Your task to perform on an android device: Go to Yahoo.com Image 0: 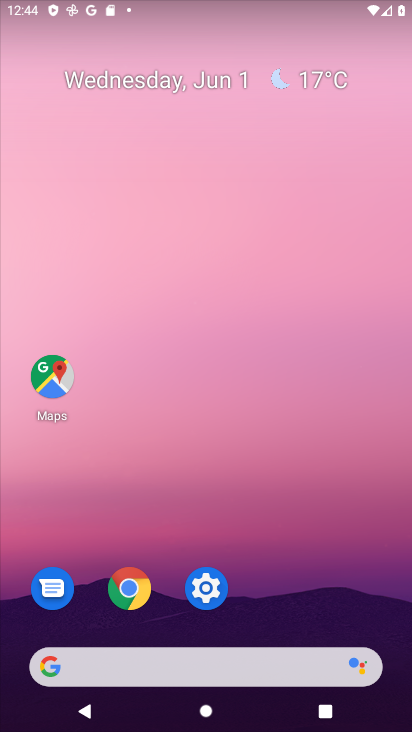
Step 0: press home button
Your task to perform on an android device: Go to Yahoo.com Image 1: 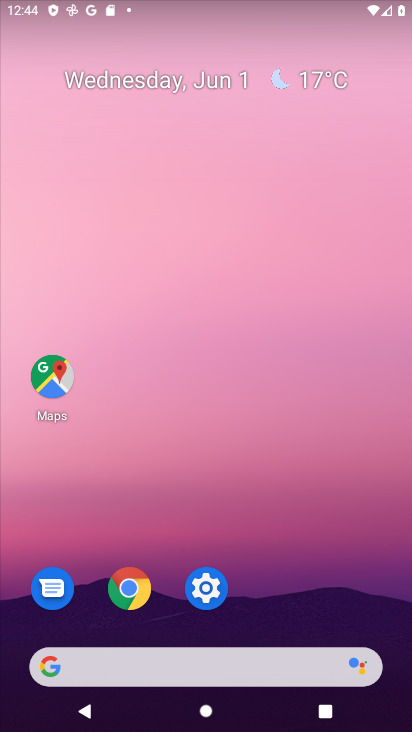
Step 1: click (142, 572)
Your task to perform on an android device: Go to Yahoo.com Image 2: 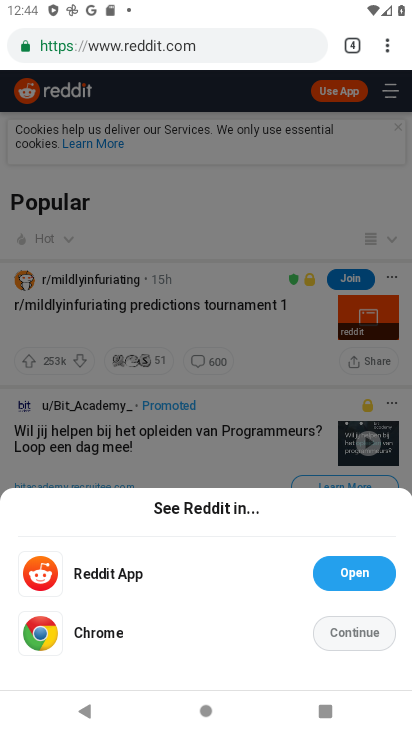
Step 2: click (206, 71)
Your task to perform on an android device: Go to Yahoo.com Image 3: 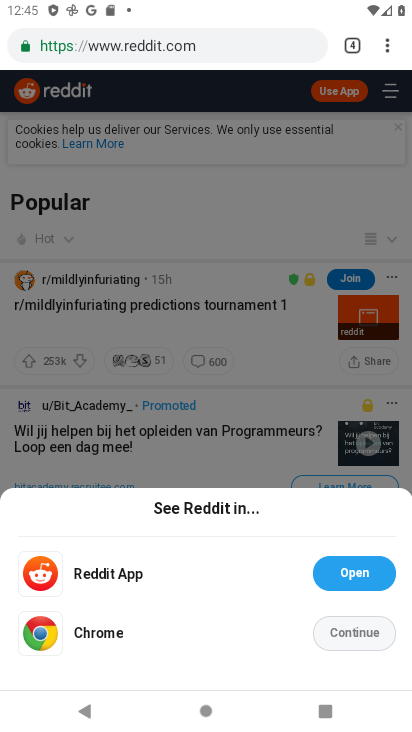
Step 3: click (203, 41)
Your task to perform on an android device: Go to Yahoo.com Image 4: 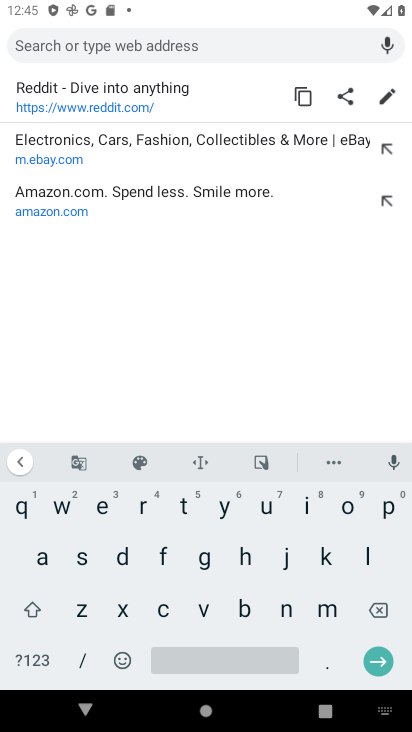
Step 4: click (222, 503)
Your task to perform on an android device: Go to Yahoo.com Image 5: 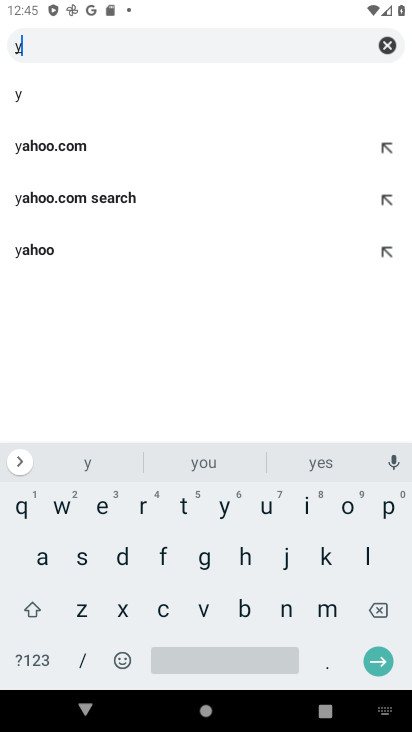
Step 5: click (32, 550)
Your task to perform on an android device: Go to Yahoo.com Image 6: 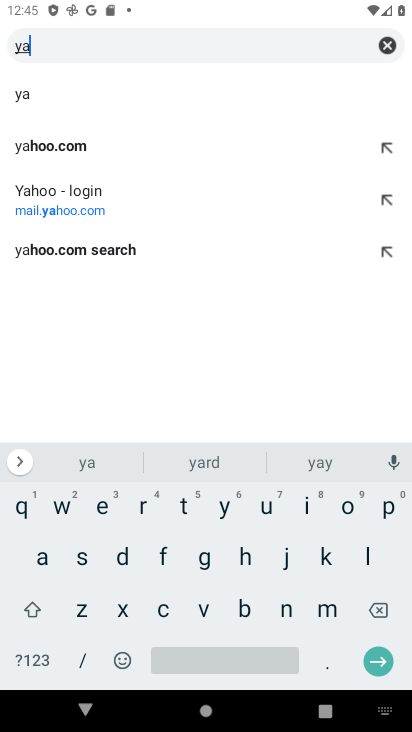
Step 6: click (66, 151)
Your task to perform on an android device: Go to Yahoo.com Image 7: 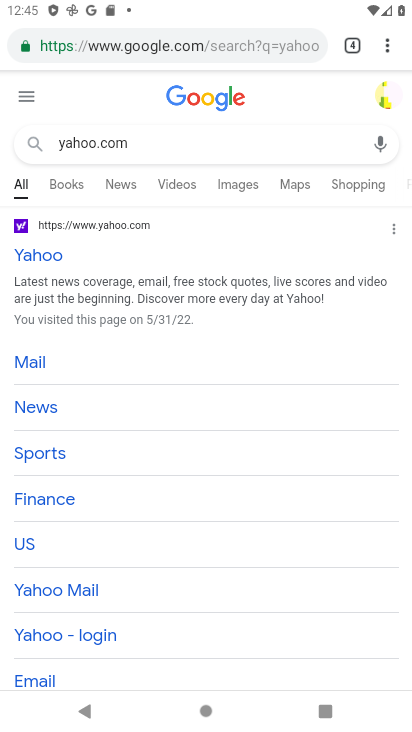
Step 7: click (30, 255)
Your task to perform on an android device: Go to Yahoo.com Image 8: 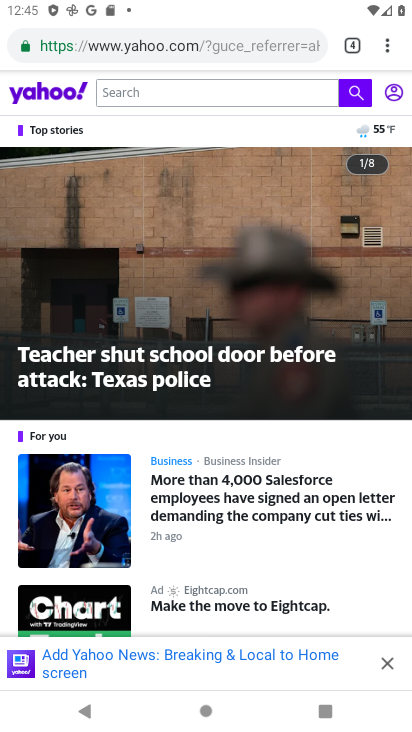
Step 8: task complete